Your task to perform on an android device: move a message to another label in the gmail app Image 0: 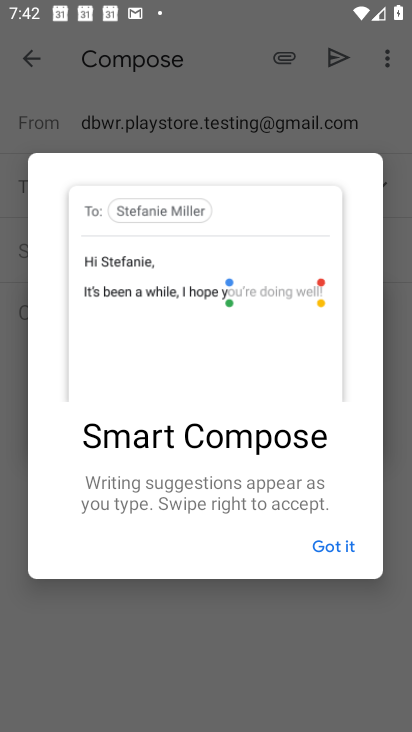
Step 0: press home button
Your task to perform on an android device: move a message to another label in the gmail app Image 1: 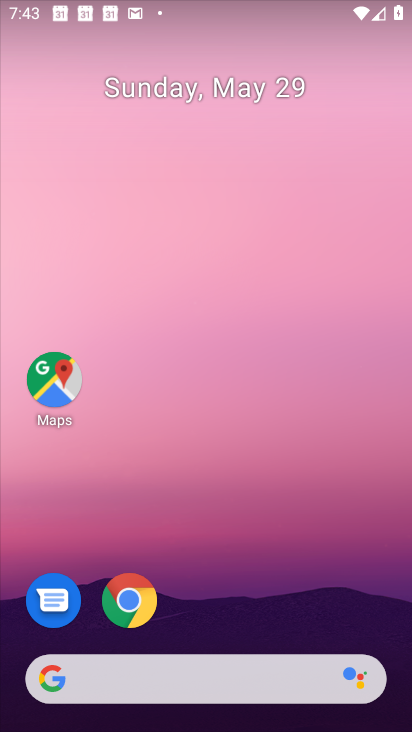
Step 1: drag from (275, 578) to (318, 153)
Your task to perform on an android device: move a message to another label in the gmail app Image 2: 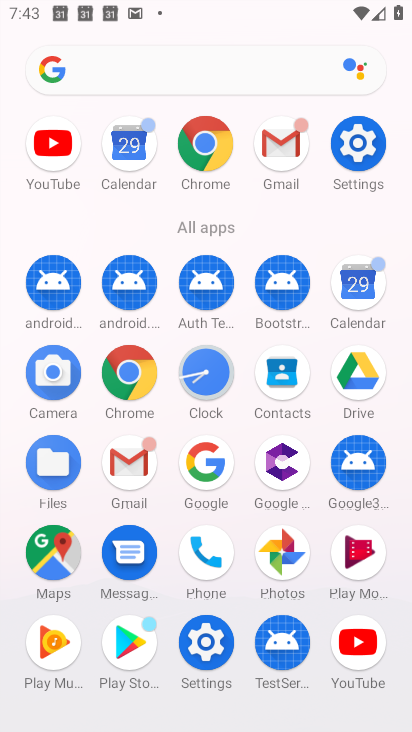
Step 2: click (133, 459)
Your task to perform on an android device: move a message to another label in the gmail app Image 3: 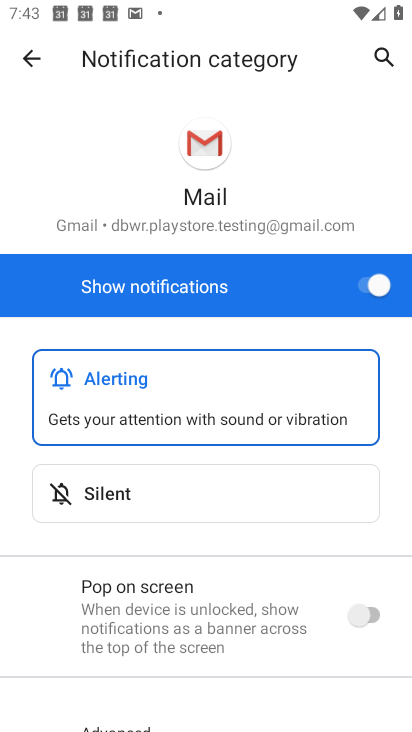
Step 3: click (14, 60)
Your task to perform on an android device: move a message to another label in the gmail app Image 4: 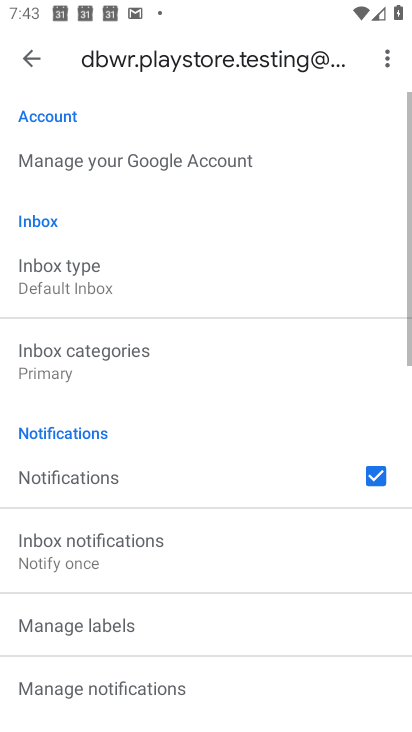
Step 4: click (15, 61)
Your task to perform on an android device: move a message to another label in the gmail app Image 5: 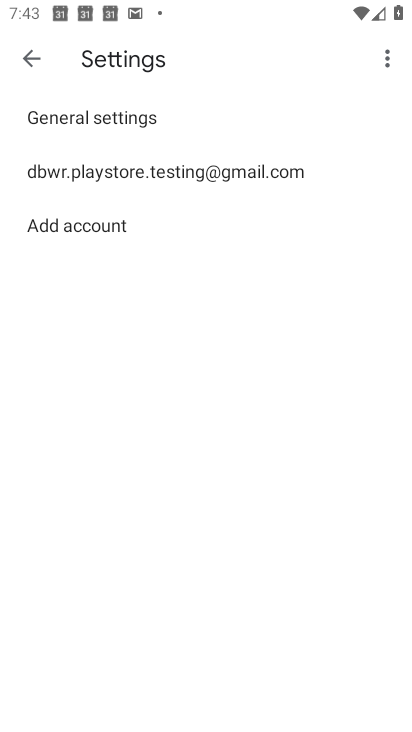
Step 5: click (15, 61)
Your task to perform on an android device: move a message to another label in the gmail app Image 6: 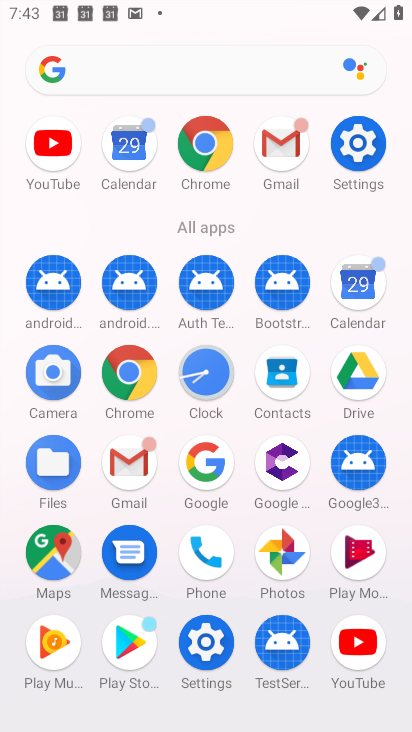
Step 6: click (277, 142)
Your task to perform on an android device: move a message to another label in the gmail app Image 7: 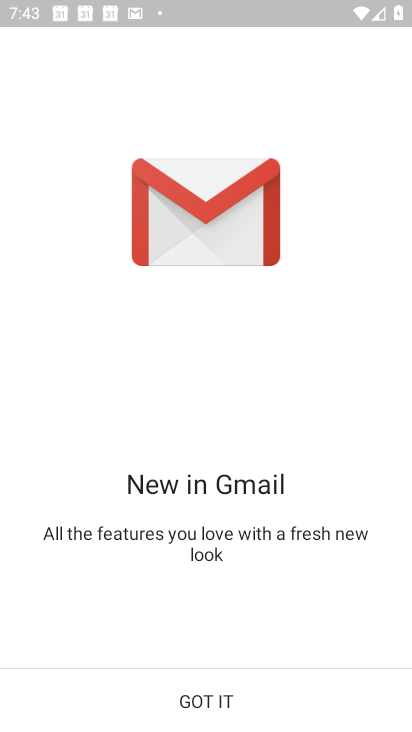
Step 7: click (219, 695)
Your task to perform on an android device: move a message to another label in the gmail app Image 8: 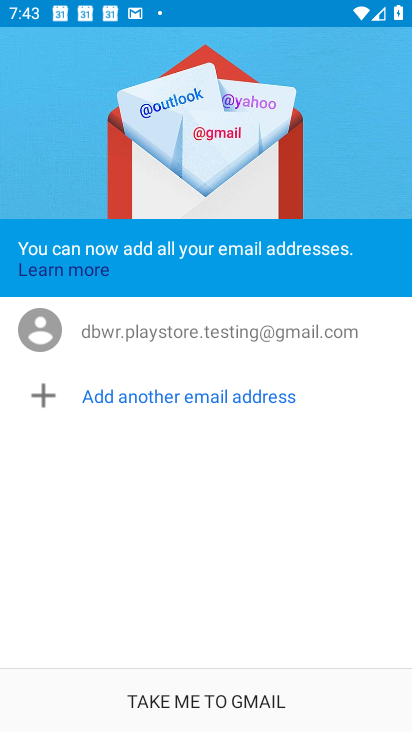
Step 8: click (222, 690)
Your task to perform on an android device: move a message to another label in the gmail app Image 9: 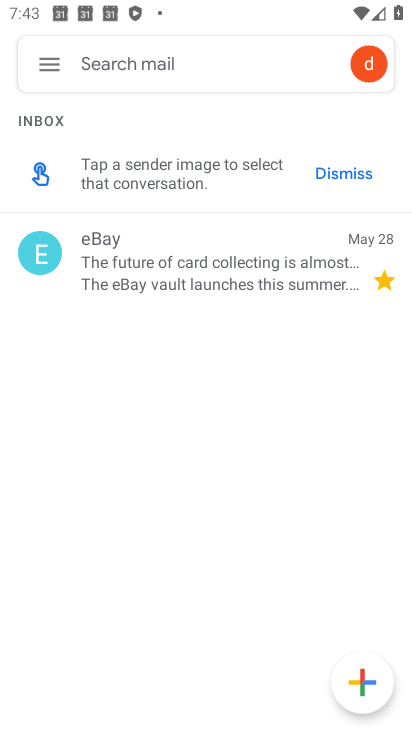
Step 9: click (152, 277)
Your task to perform on an android device: move a message to another label in the gmail app Image 10: 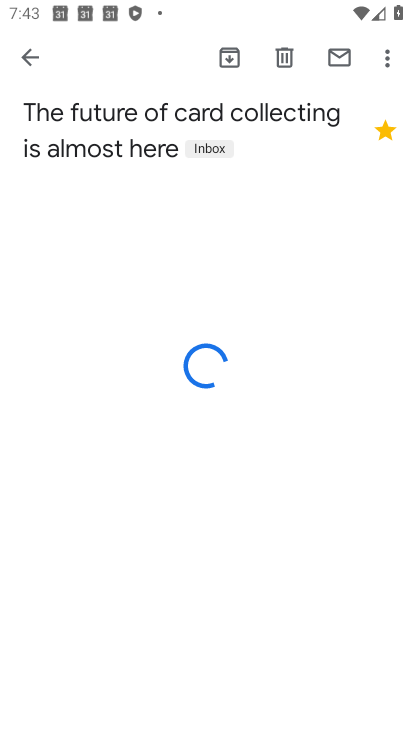
Step 10: click (381, 62)
Your task to perform on an android device: move a message to another label in the gmail app Image 11: 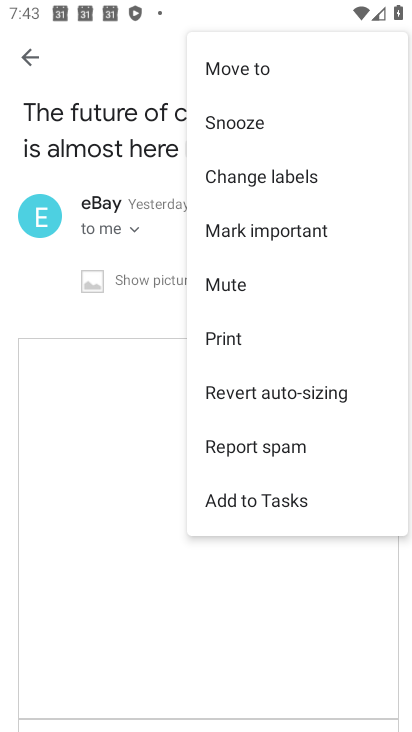
Step 11: click (284, 132)
Your task to perform on an android device: move a message to another label in the gmail app Image 12: 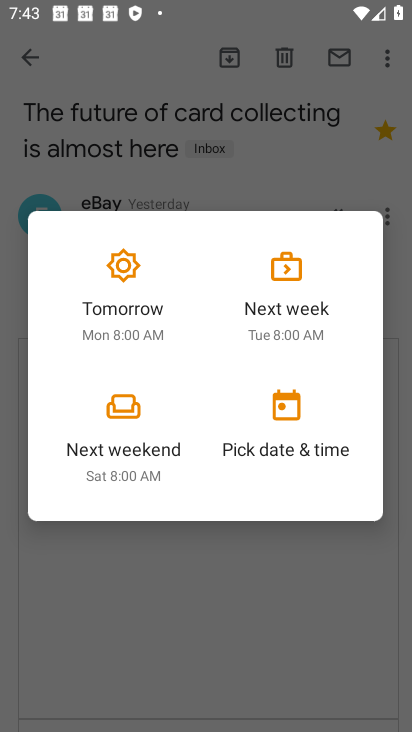
Step 12: click (128, 299)
Your task to perform on an android device: move a message to another label in the gmail app Image 13: 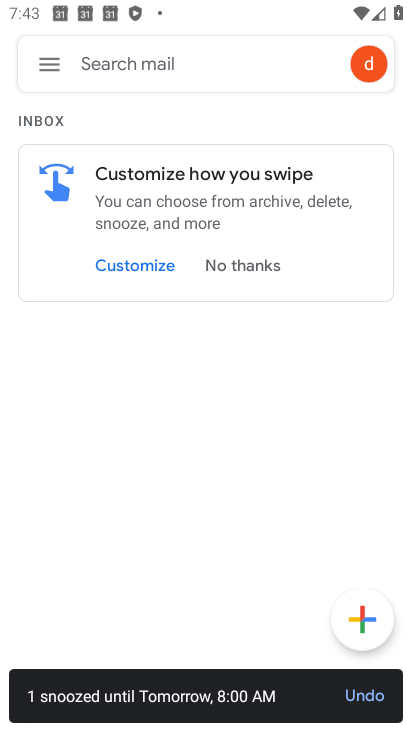
Step 13: task complete